Your task to perform on an android device: Find coffee shops on Maps Image 0: 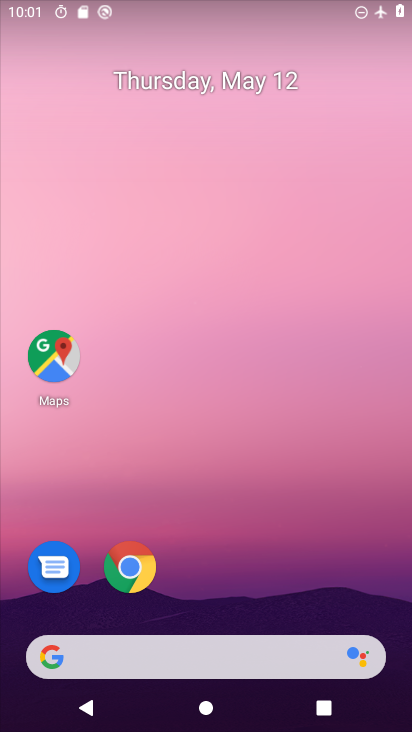
Step 0: click (261, 213)
Your task to perform on an android device: Find coffee shops on Maps Image 1: 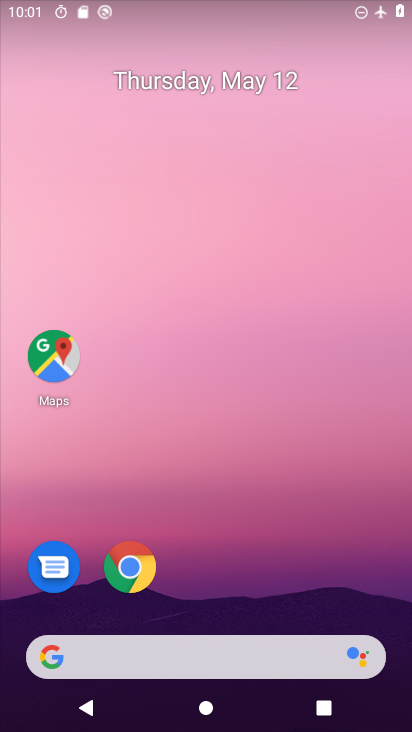
Step 1: drag from (233, 623) to (240, 194)
Your task to perform on an android device: Find coffee shops on Maps Image 2: 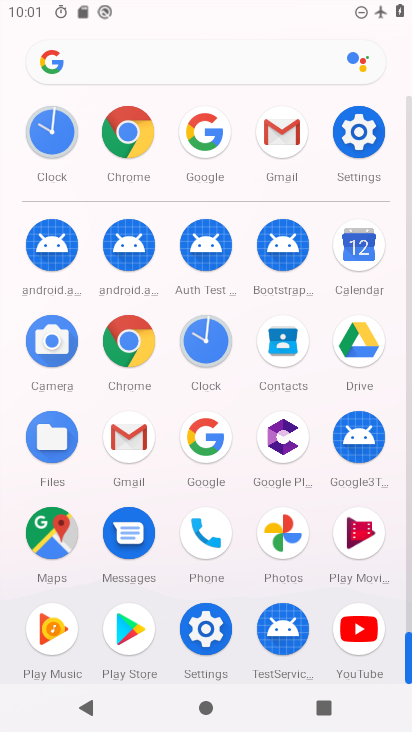
Step 2: click (60, 551)
Your task to perform on an android device: Find coffee shops on Maps Image 3: 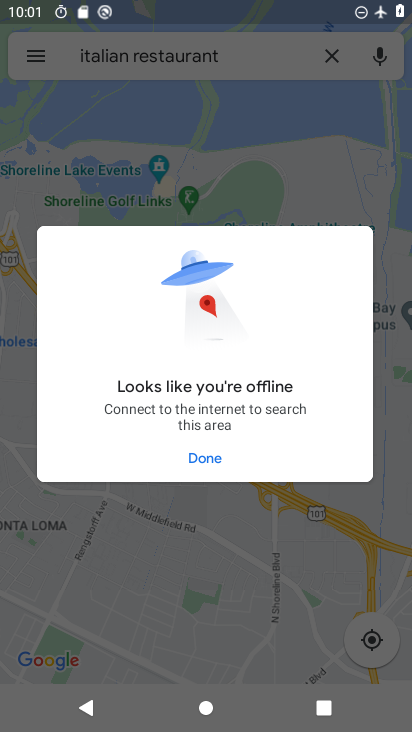
Step 3: click (203, 448)
Your task to perform on an android device: Find coffee shops on Maps Image 4: 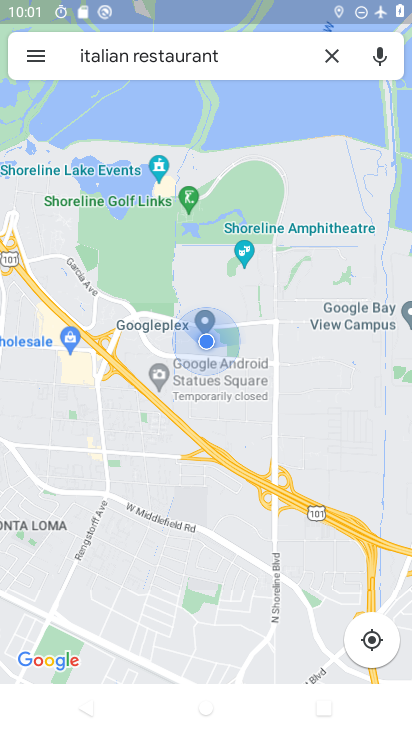
Step 4: click (333, 59)
Your task to perform on an android device: Find coffee shops on Maps Image 5: 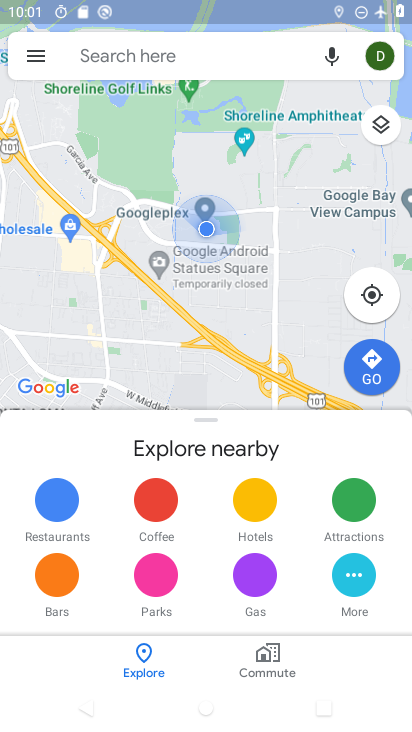
Step 5: click (203, 51)
Your task to perform on an android device: Find coffee shops on Maps Image 6: 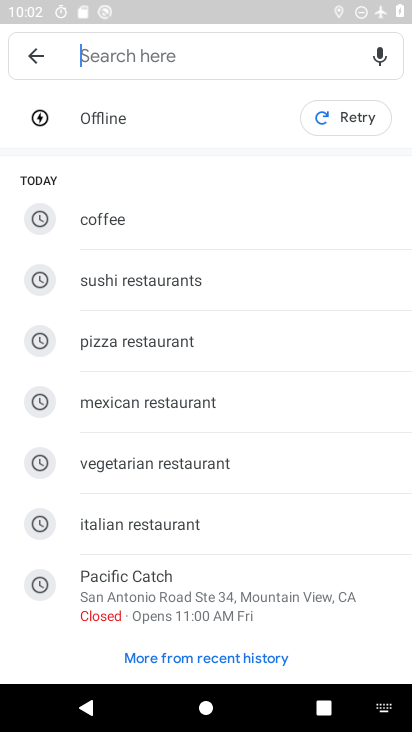
Step 6: type "coffee shops"
Your task to perform on an android device: Find coffee shops on Maps Image 7: 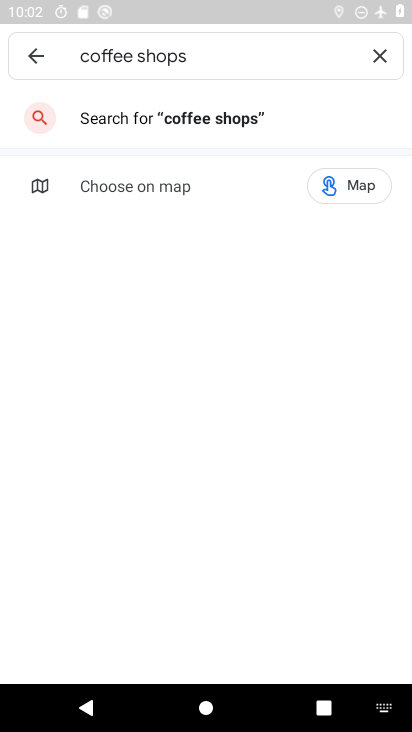
Step 7: click (257, 118)
Your task to perform on an android device: Find coffee shops on Maps Image 8: 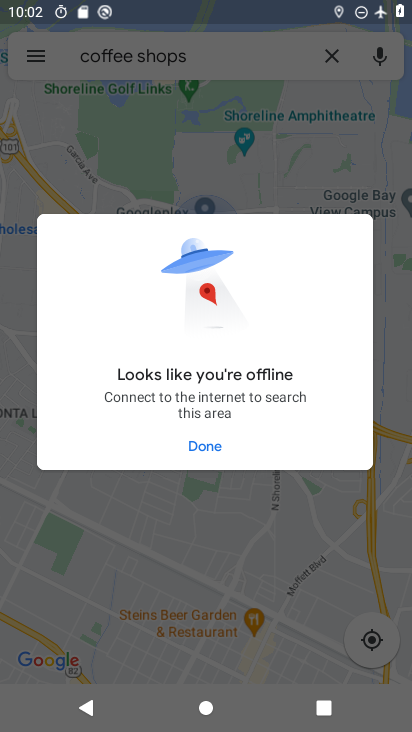
Step 8: task complete